Your task to perform on an android device: Go to Wikipedia Image 0: 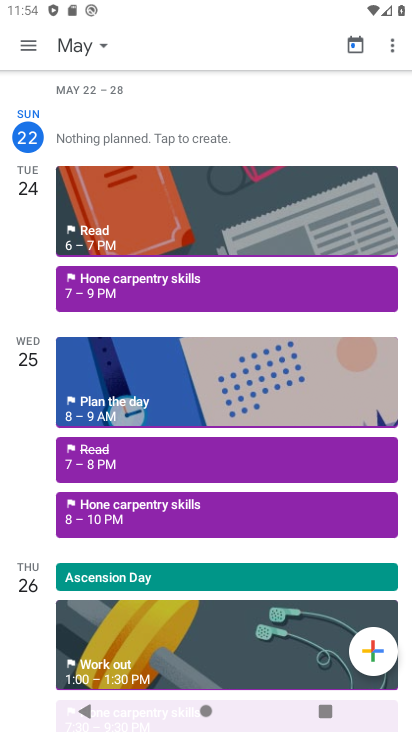
Step 0: drag from (246, 702) to (247, 121)
Your task to perform on an android device: Go to Wikipedia Image 1: 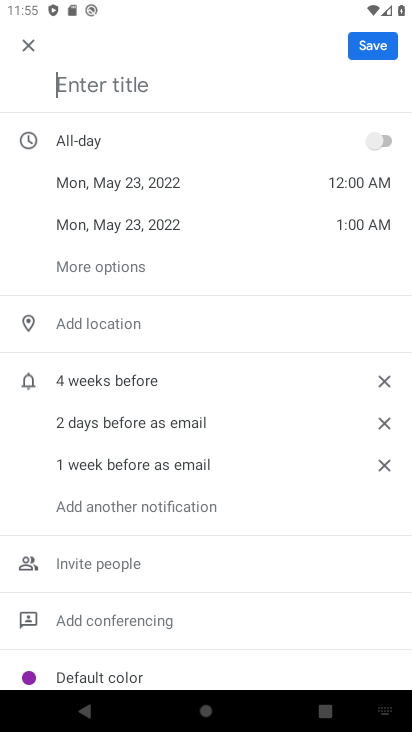
Step 1: press back button
Your task to perform on an android device: Go to Wikipedia Image 2: 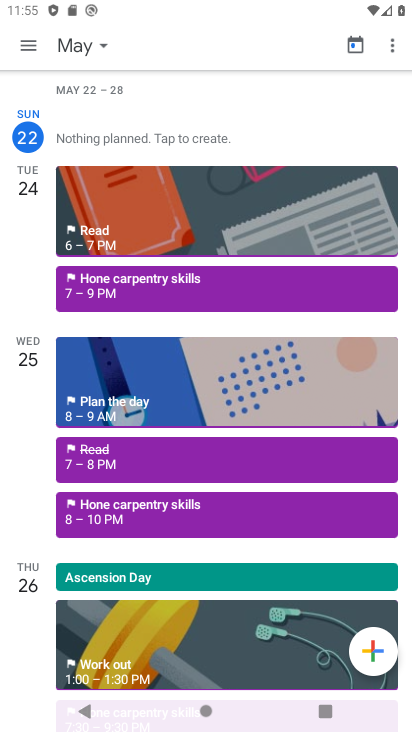
Step 2: press home button
Your task to perform on an android device: Go to Wikipedia Image 3: 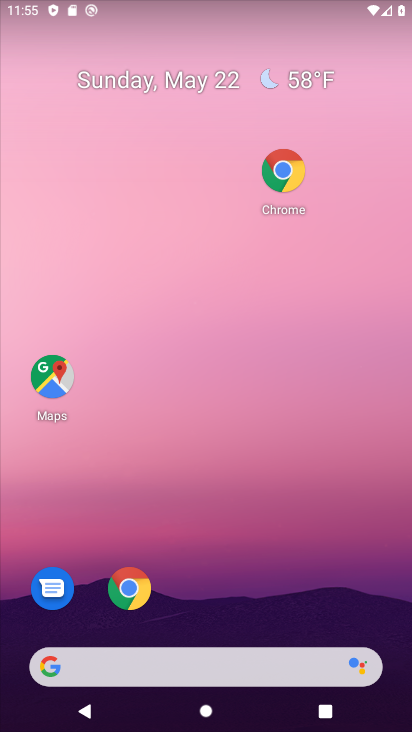
Step 3: drag from (259, 640) to (256, 99)
Your task to perform on an android device: Go to Wikipedia Image 4: 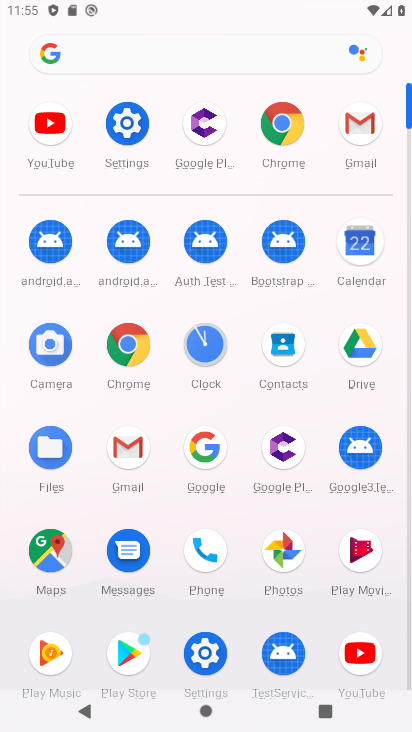
Step 4: click (122, 337)
Your task to perform on an android device: Go to Wikipedia Image 5: 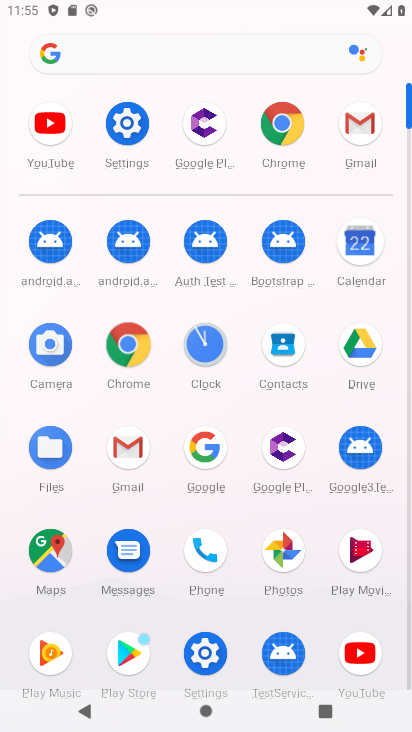
Step 5: click (122, 337)
Your task to perform on an android device: Go to Wikipedia Image 6: 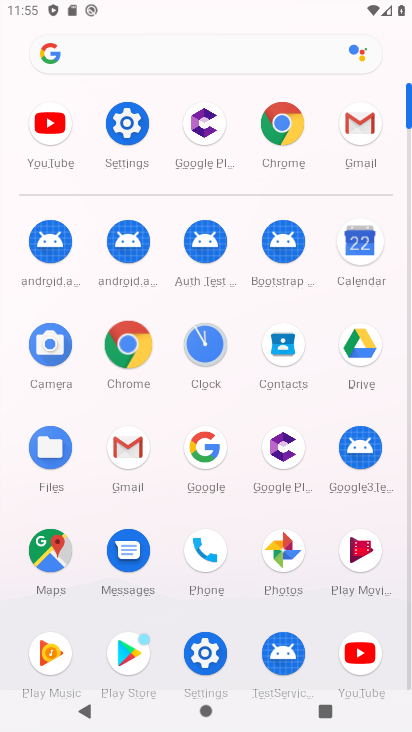
Step 6: click (138, 336)
Your task to perform on an android device: Go to Wikipedia Image 7: 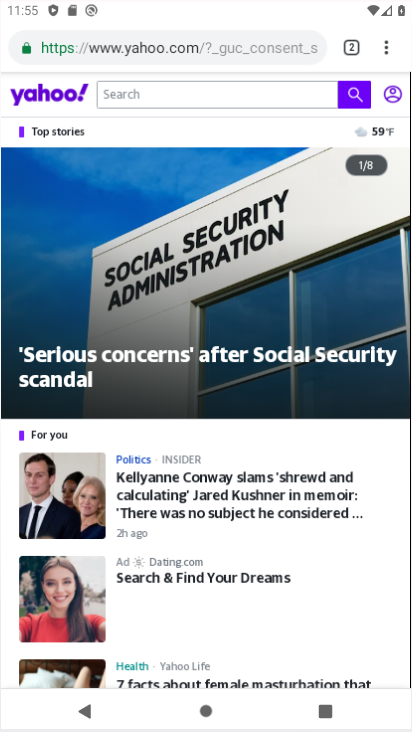
Step 7: click (147, 332)
Your task to perform on an android device: Go to Wikipedia Image 8: 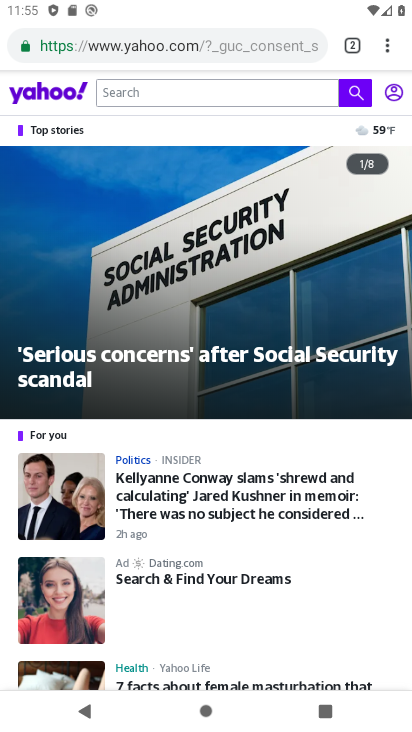
Step 8: click (135, 341)
Your task to perform on an android device: Go to Wikipedia Image 9: 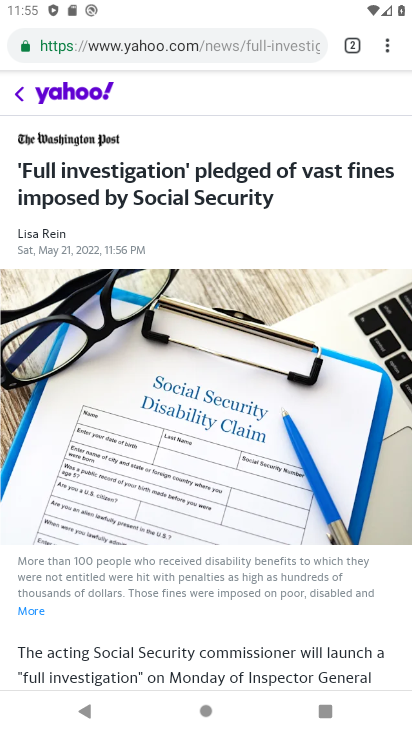
Step 9: drag from (386, 44) to (238, 95)
Your task to perform on an android device: Go to Wikipedia Image 10: 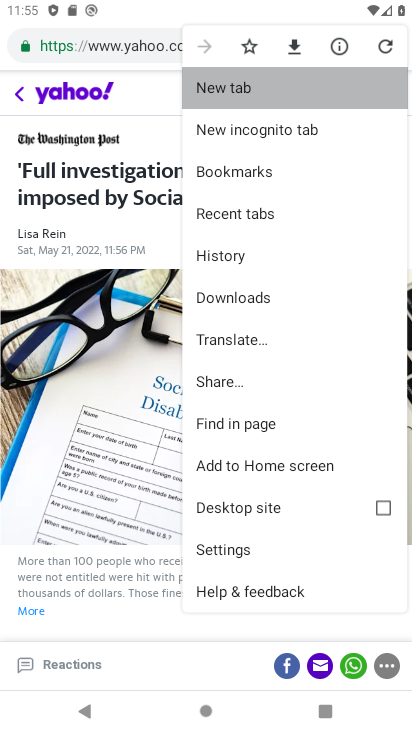
Step 10: click (248, 93)
Your task to perform on an android device: Go to Wikipedia Image 11: 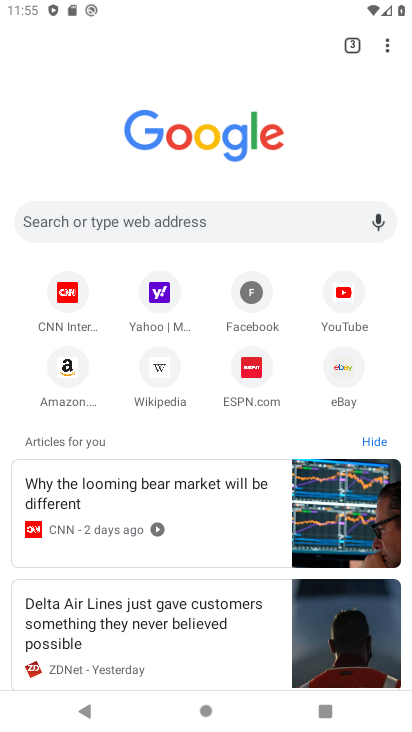
Step 11: click (159, 373)
Your task to perform on an android device: Go to Wikipedia Image 12: 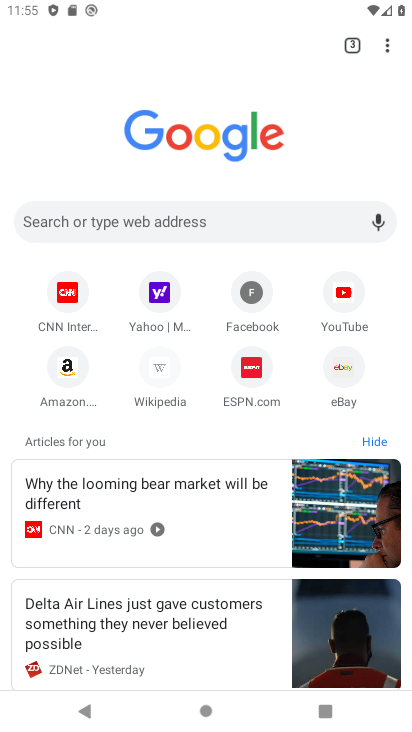
Step 12: click (172, 373)
Your task to perform on an android device: Go to Wikipedia Image 13: 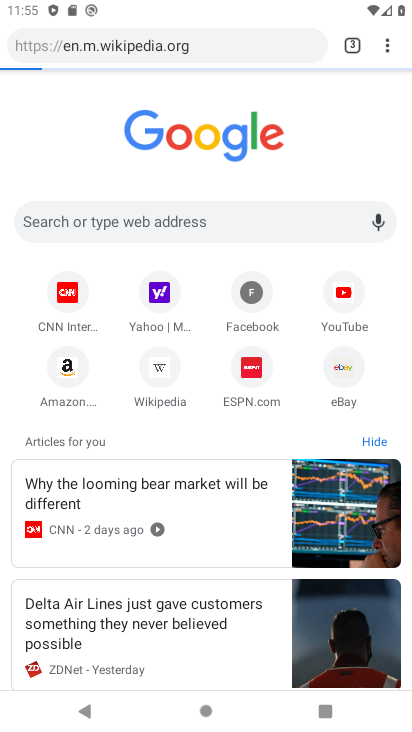
Step 13: click (172, 373)
Your task to perform on an android device: Go to Wikipedia Image 14: 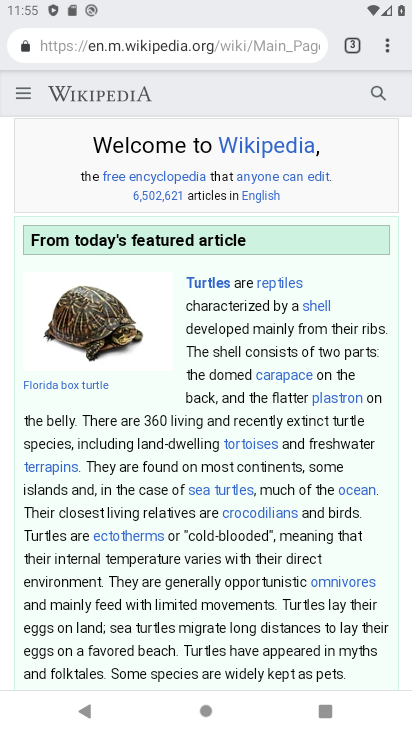
Step 14: task complete